Your task to perform on an android device: check out phone information Image 0: 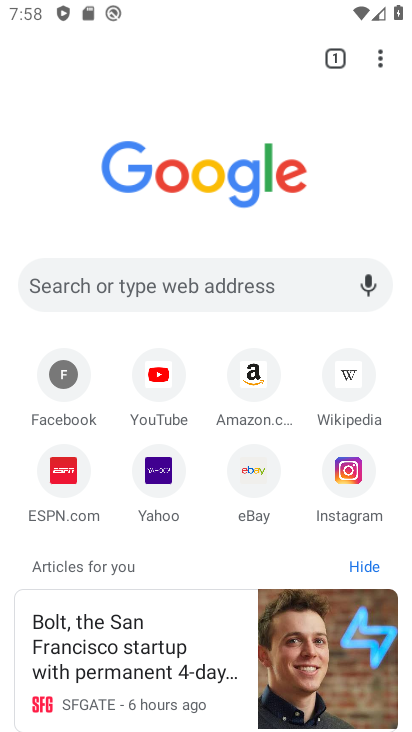
Step 0: press home button
Your task to perform on an android device: check out phone information Image 1: 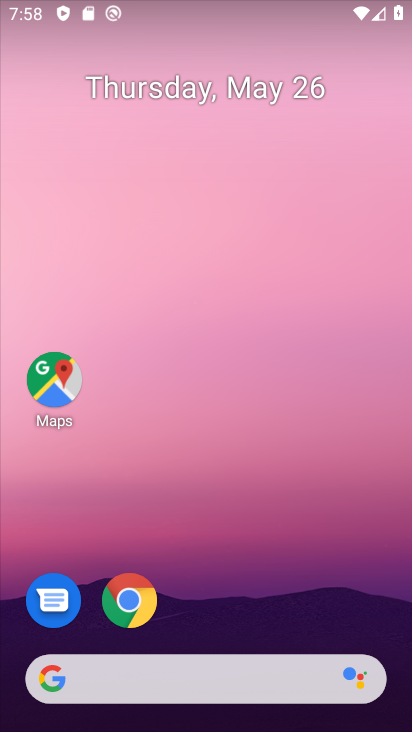
Step 1: drag from (243, 615) to (278, 18)
Your task to perform on an android device: check out phone information Image 2: 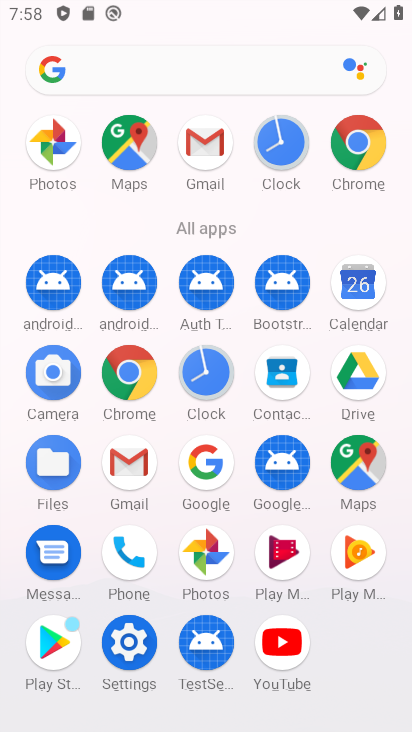
Step 2: click (123, 654)
Your task to perform on an android device: check out phone information Image 3: 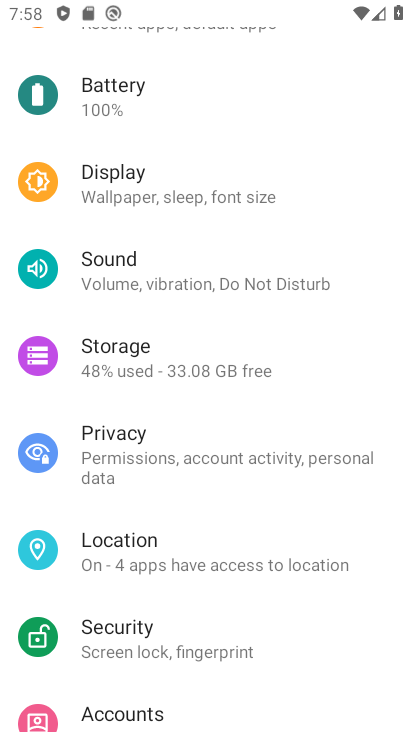
Step 3: drag from (123, 654) to (258, 101)
Your task to perform on an android device: check out phone information Image 4: 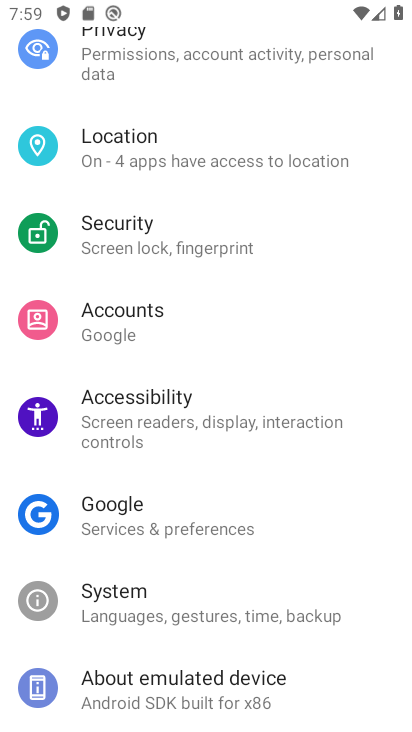
Step 4: click (92, 715)
Your task to perform on an android device: check out phone information Image 5: 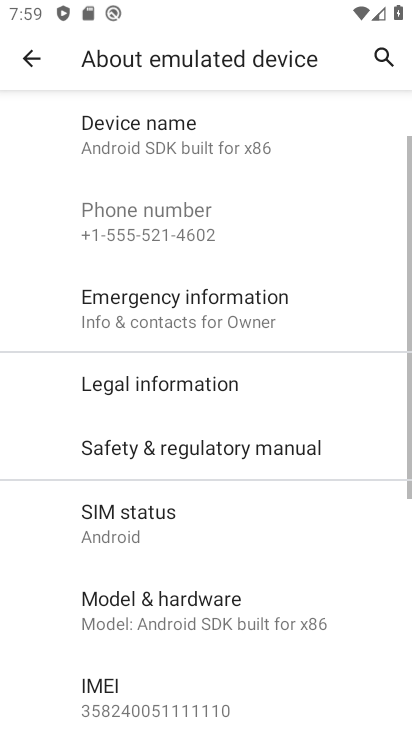
Step 5: task complete